Your task to perform on an android device: turn on data saver in the chrome app Image 0: 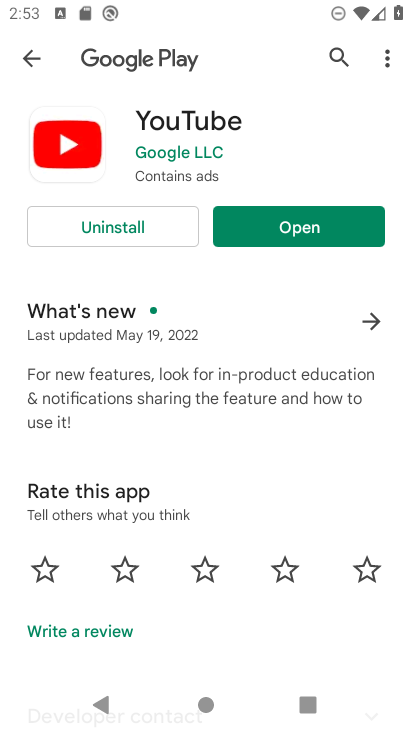
Step 0: press home button
Your task to perform on an android device: turn on data saver in the chrome app Image 1: 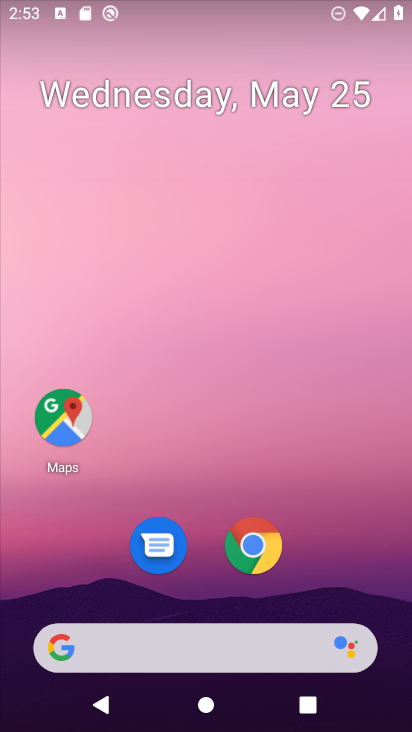
Step 1: click (249, 556)
Your task to perform on an android device: turn on data saver in the chrome app Image 2: 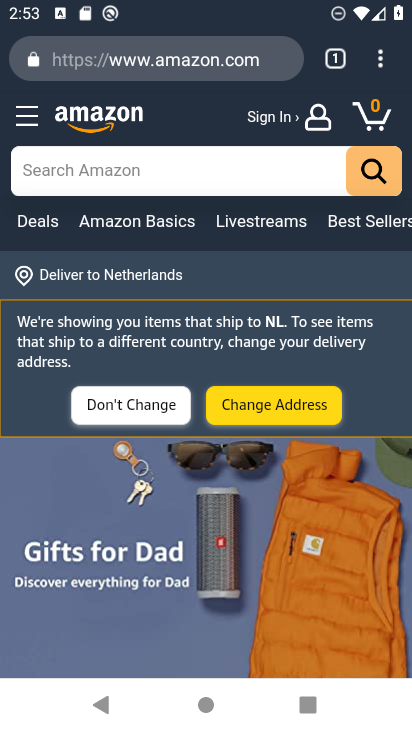
Step 2: click (383, 64)
Your task to perform on an android device: turn on data saver in the chrome app Image 3: 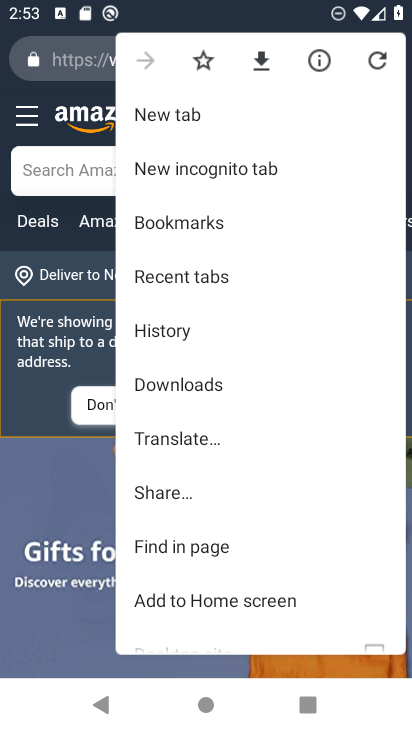
Step 3: drag from (255, 536) to (255, 185)
Your task to perform on an android device: turn on data saver in the chrome app Image 4: 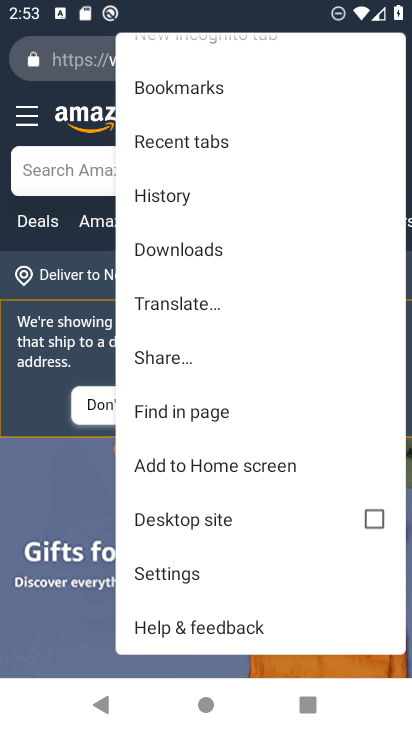
Step 4: click (251, 567)
Your task to perform on an android device: turn on data saver in the chrome app Image 5: 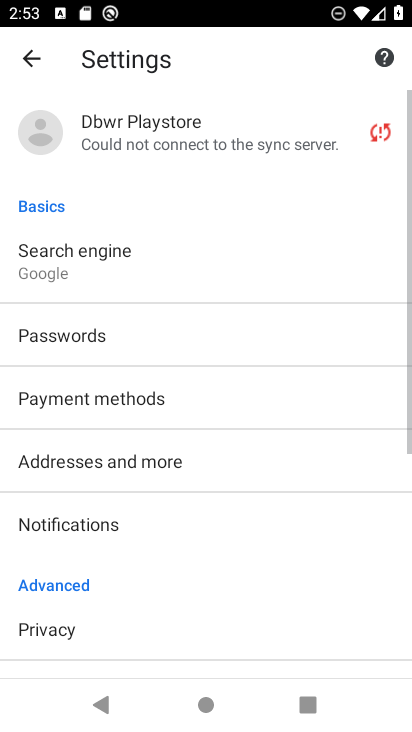
Step 5: drag from (195, 611) to (228, 246)
Your task to perform on an android device: turn on data saver in the chrome app Image 6: 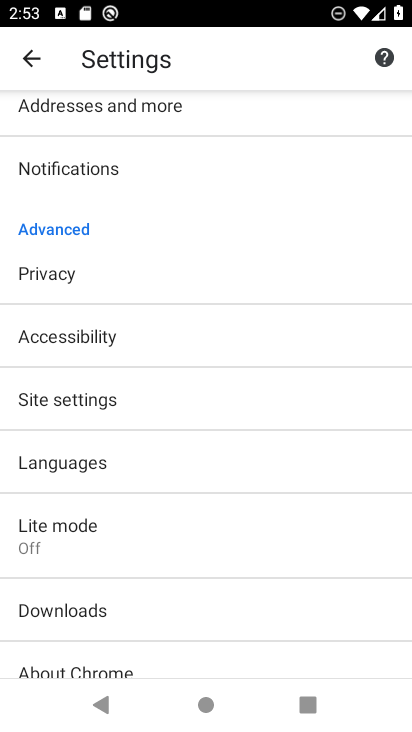
Step 6: click (175, 574)
Your task to perform on an android device: turn on data saver in the chrome app Image 7: 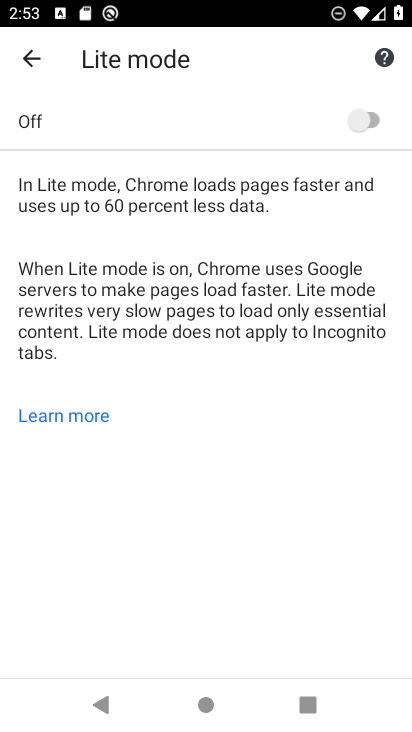
Step 7: click (357, 129)
Your task to perform on an android device: turn on data saver in the chrome app Image 8: 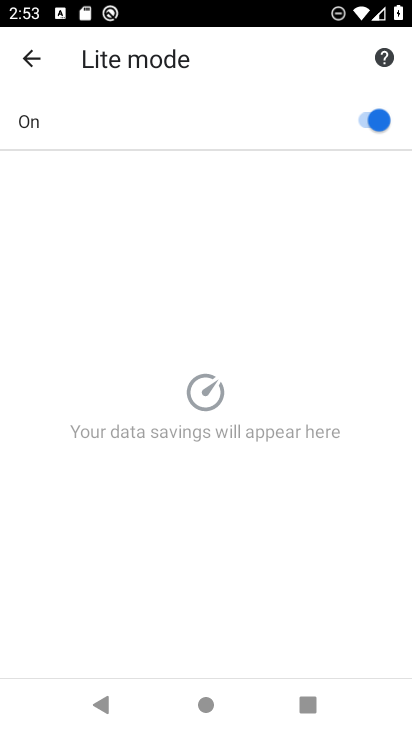
Step 8: task complete